Your task to perform on an android device: Open eBay Image 0: 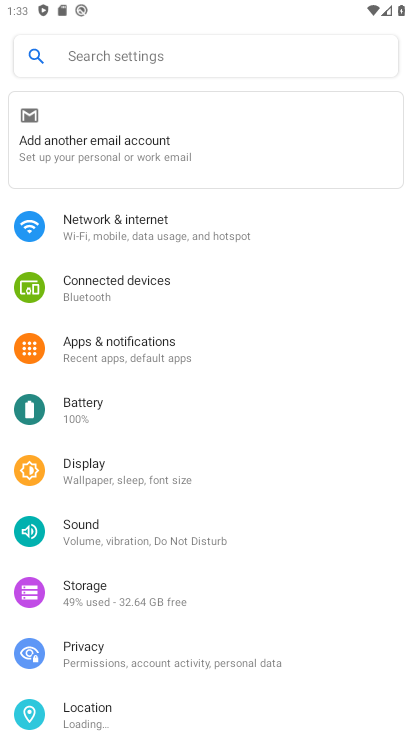
Step 0: press back button
Your task to perform on an android device: Open eBay Image 1: 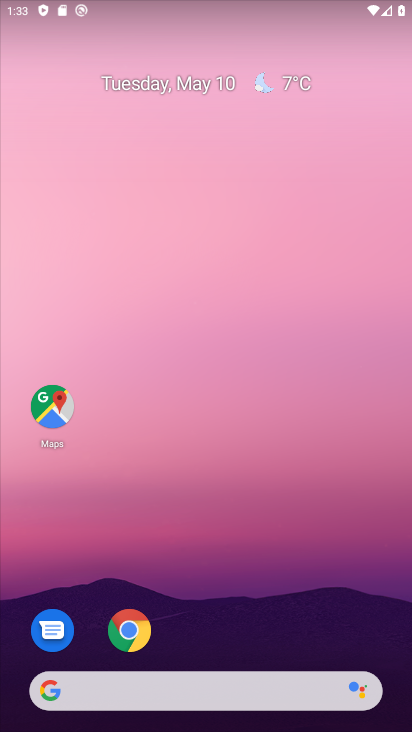
Step 1: drag from (269, 556) to (179, 19)
Your task to perform on an android device: Open eBay Image 2: 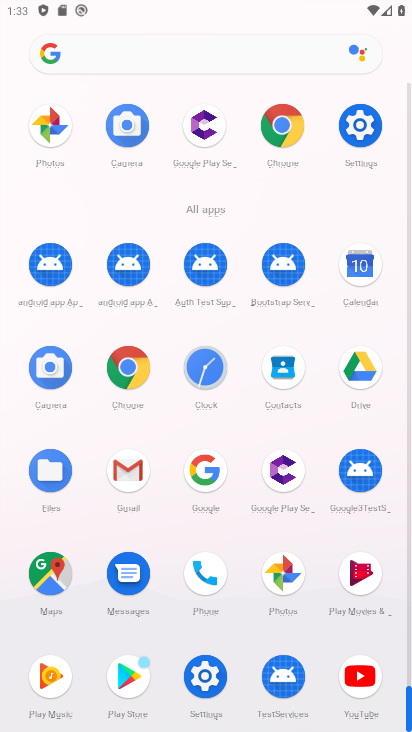
Step 2: drag from (16, 545) to (8, 272)
Your task to perform on an android device: Open eBay Image 3: 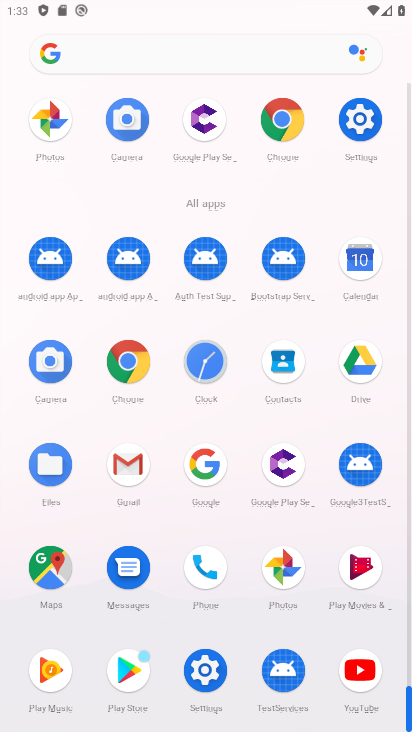
Step 3: click (129, 364)
Your task to perform on an android device: Open eBay Image 4: 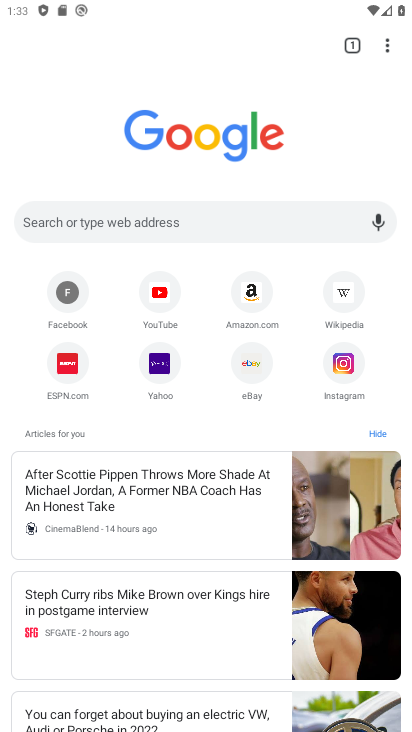
Step 4: click (255, 355)
Your task to perform on an android device: Open eBay Image 5: 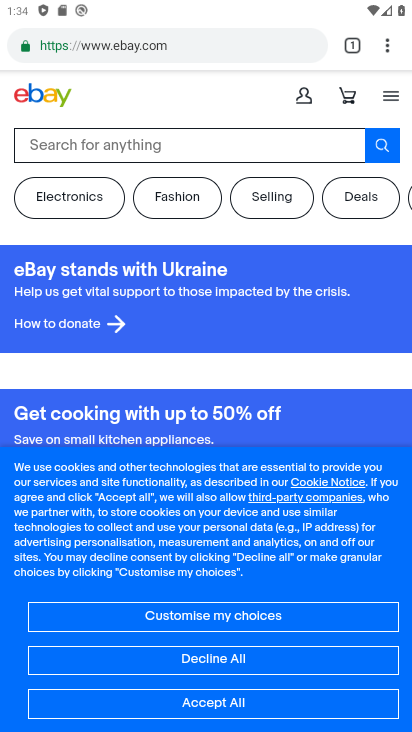
Step 5: task complete